Your task to perform on an android device: turn on sleep mode Image 0: 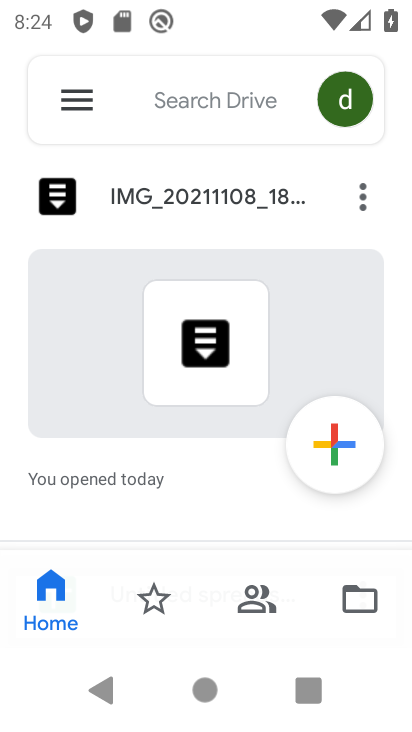
Step 0: press home button
Your task to perform on an android device: turn on sleep mode Image 1: 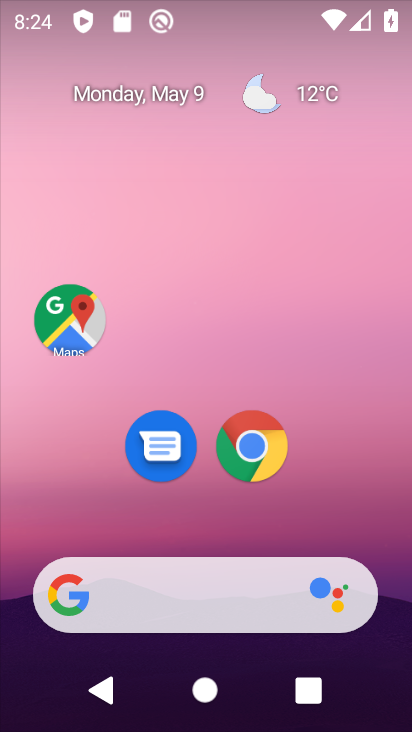
Step 1: drag from (397, 670) to (312, 138)
Your task to perform on an android device: turn on sleep mode Image 2: 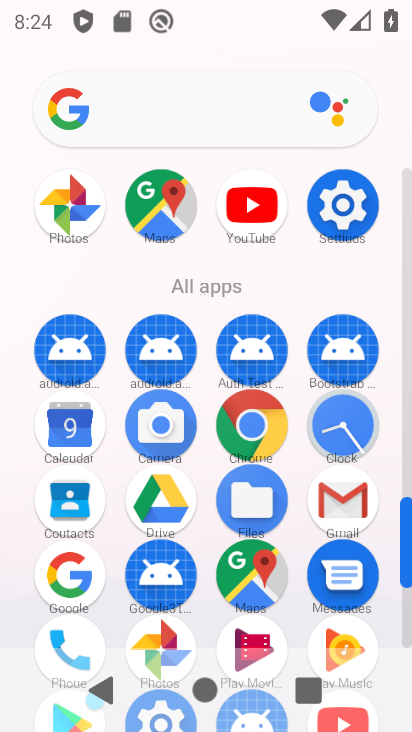
Step 2: click (405, 632)
Your task to perform on an android device: turn on sleep mode Image 3: 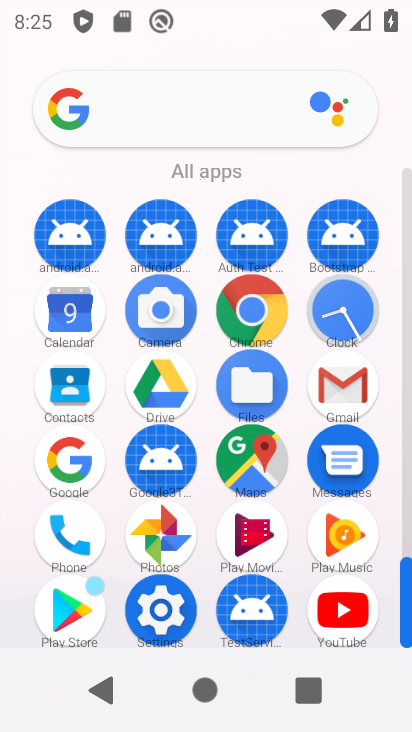
Step 3: click (162, 611)
Your task to perform on an android device: turn on sleep mode Image 4: 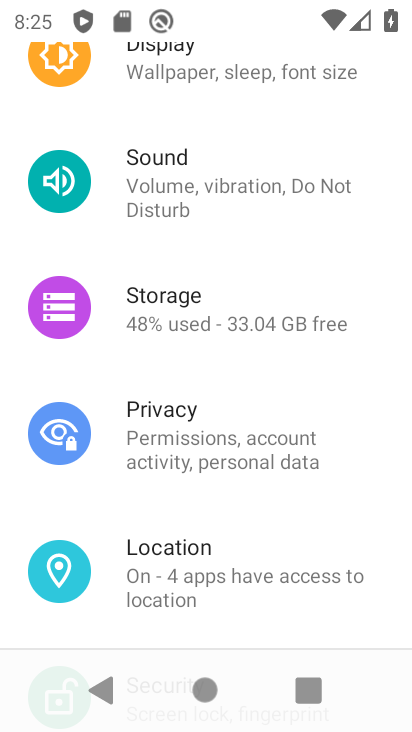
Step 4: drag from (270, 245) to (240, 516)
Your task to perform on an android device: turn on sleep mode Image 5: 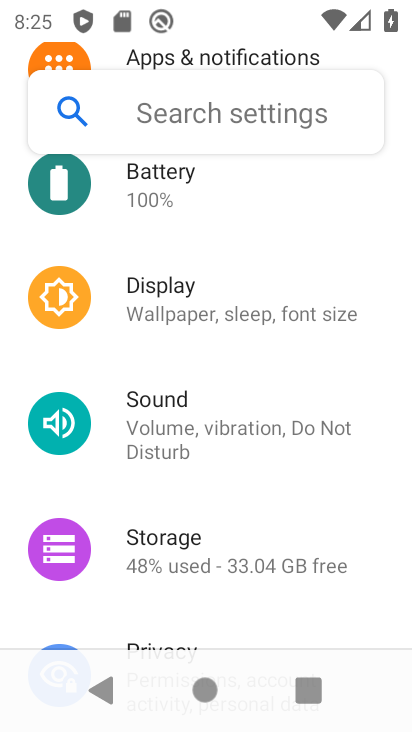
Step 5: click (167, 290)
Your task to perform on an android device: turn on sleep mode Image 6: 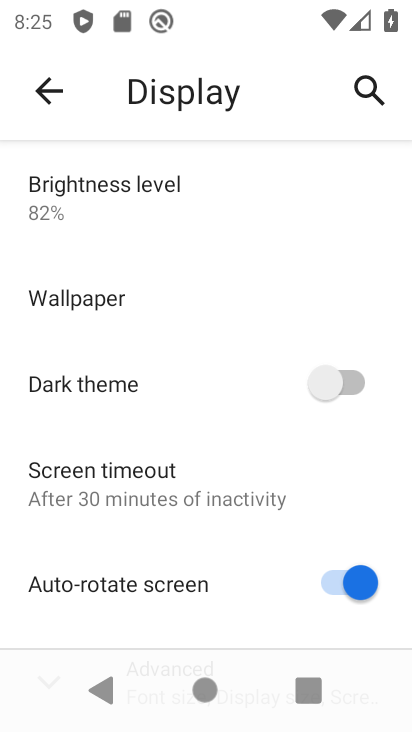
Step 6: drag from (261, 548) to (307, 209)
Your task to perform on an android device: turn on sleep mode Image 7: 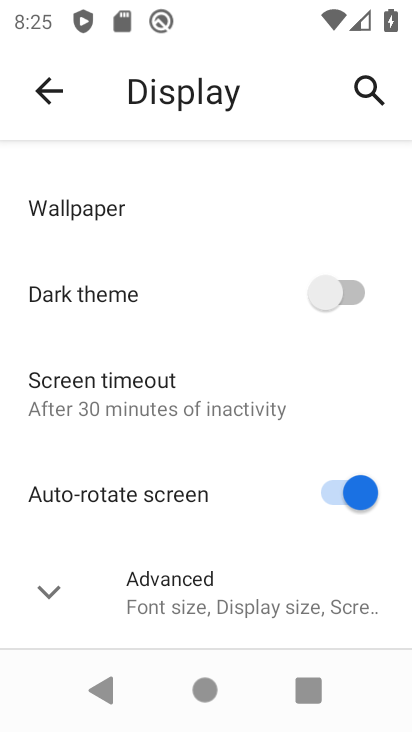
Step 7: click (48, 592)
Your task to perform on an android device: turn on sleep mode Image 8: 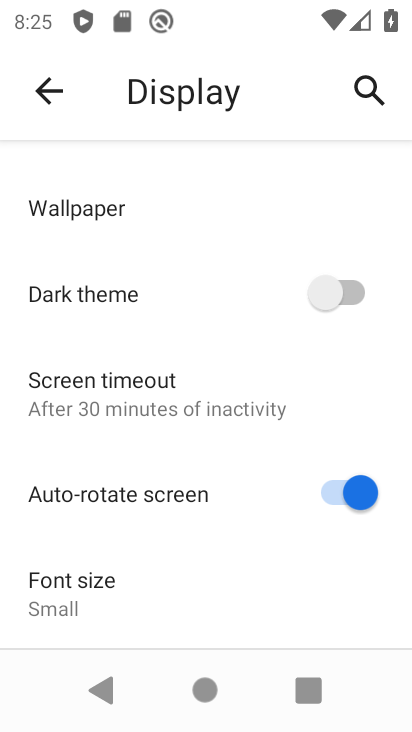
Step 8: task complete